Your task to perform on an android device: turn off notifications settings in the gmail app Image 0: 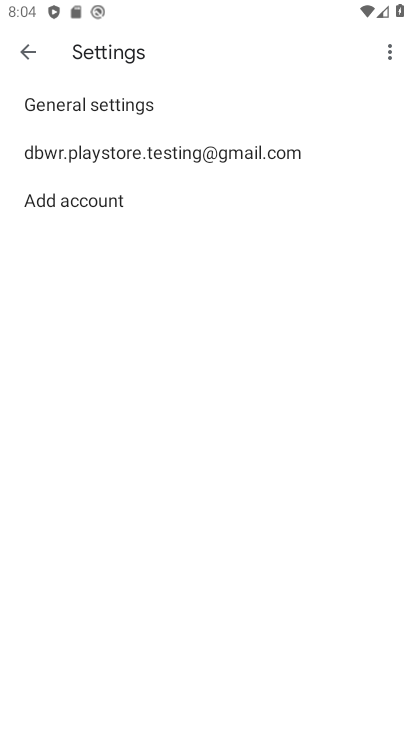
Step 0: press home button
Your task to perform on an android device: turn off notifications settings in the gmail app Image 1: 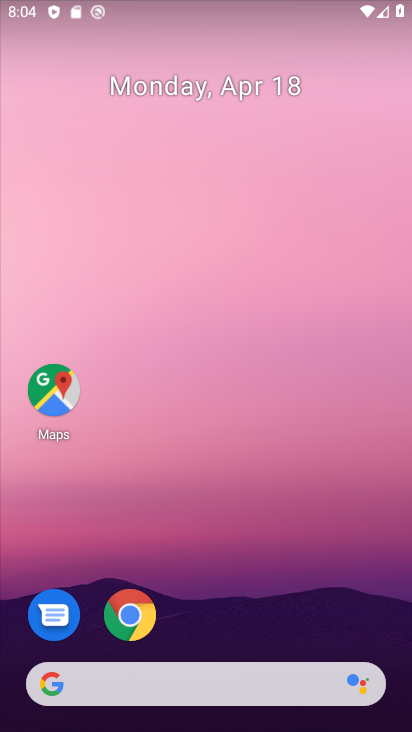
Step 1: drag from (224, 555) to (276, 129)
Your task to perform on an android device: turn off notifications settings in the gmail app Image 2: 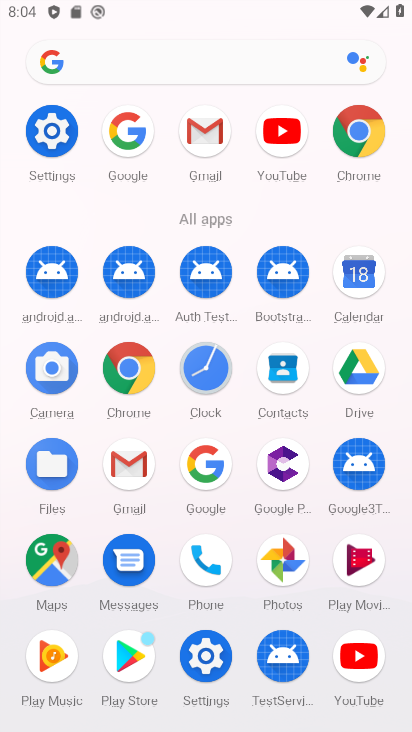
Step 2: click (202, 129)
Your task to perform on an android device: turn off notifications settings in the gmail app Image 3: 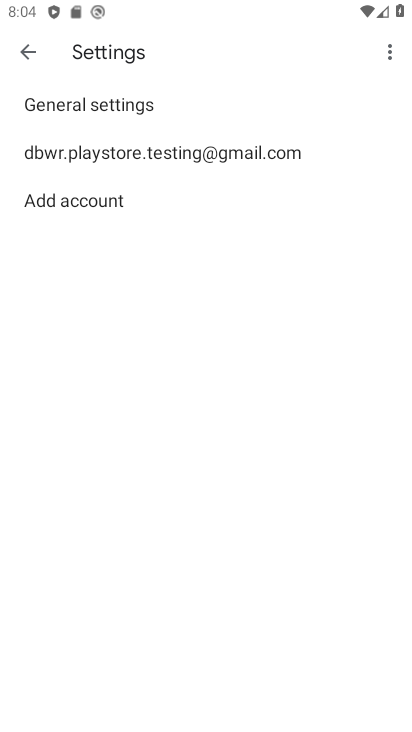
Step 3: click (203, 148)
Your task to perform on an android device: turn off notifications settings in the gmail app Image 4: 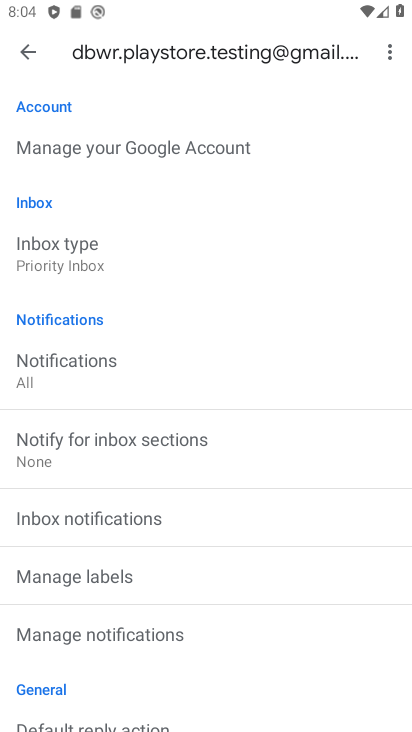
Step 4: click (156, 635)
Your task to perform on an android device: turn off notifications settings in the gmail app Image 5: 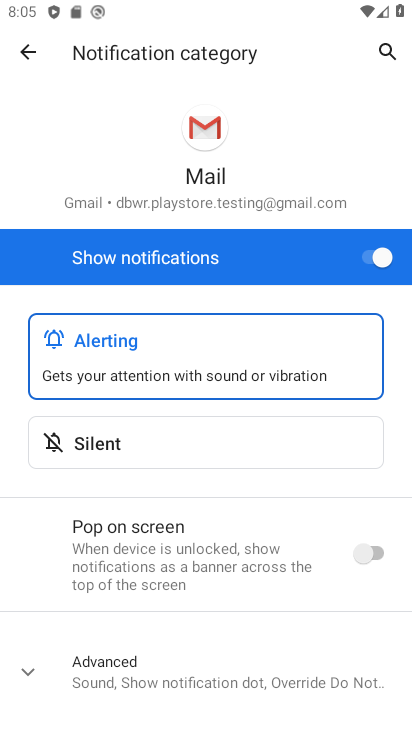
Step 5: click (369, 250)
Your task to perform on an android device: turn off notifications settings in the gmail app Image 6: 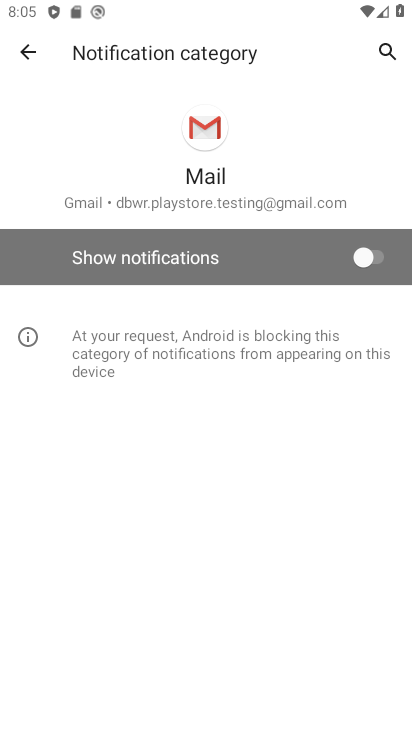
Step 6: task complete